Your task to perform on an android device: turn on improve location accuracy Image 0: 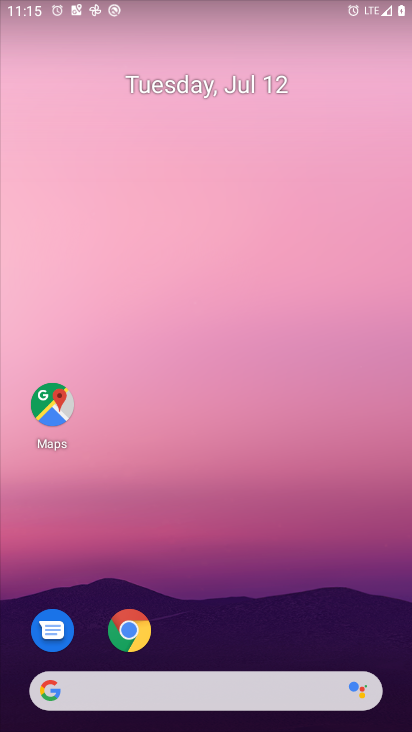
Step 0: press home button
Your task to perform on an android device: turn on improve location accuracy Image 1: 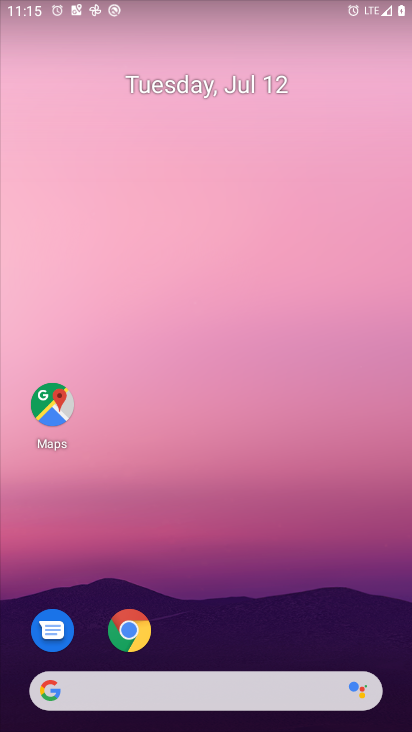
Step 1: drag from (260, 625) to (321, 82)
Your task to perform on an android device: turn on improve location accuracy Image 2: 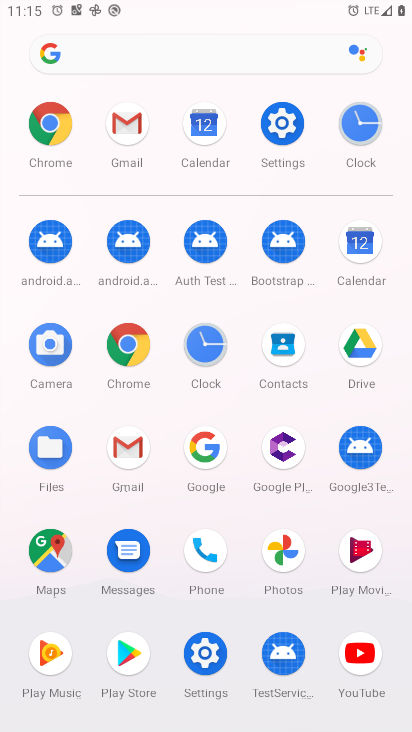
Step 2: click (279, 125)
Your task to perform on an android device: turn on improve location accuracy Image 3: 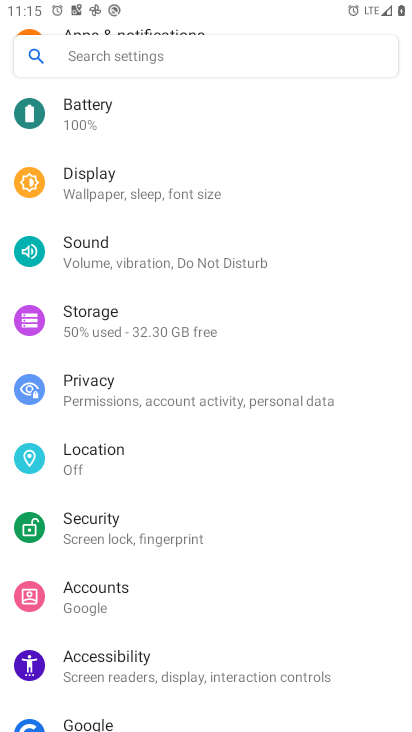
Step 3: click (118, 456)
Your task to perform on an android device: turn on improve location accuracy Image 4: 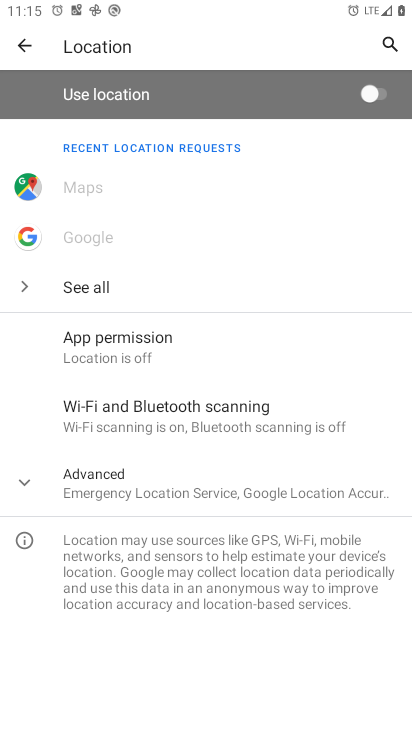
Step 4: click (22, 482)
Your task to perform on an android device: turn on improve location accuracy Image 5: 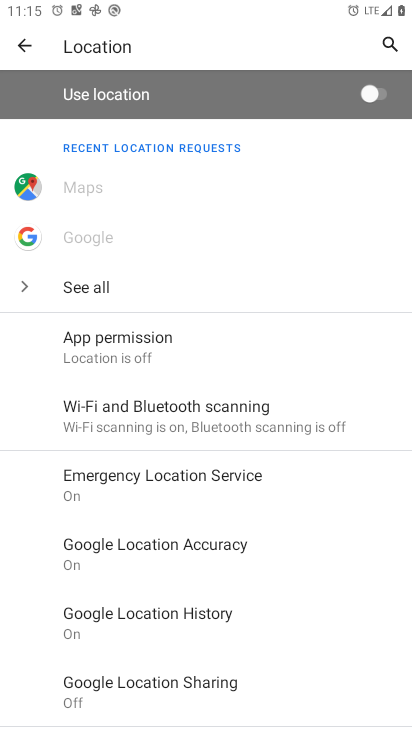
Step 5: click (193, 547)
Your task to perform on an android device: turn on improve location accuracy Image 6: 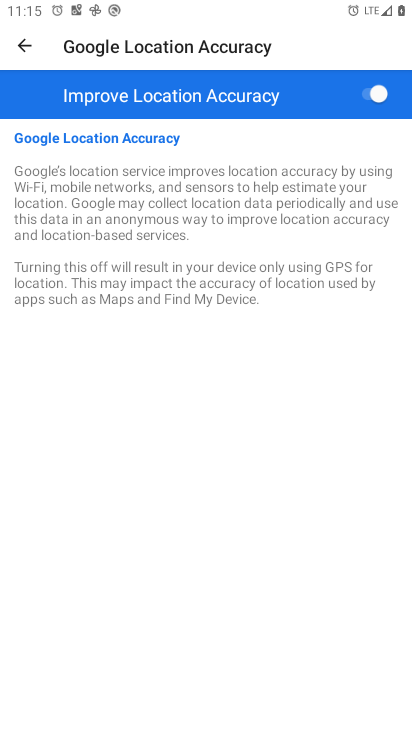
Step 6: task complete